Your task to perform on an android device: Toggle the flashlight Image 0: 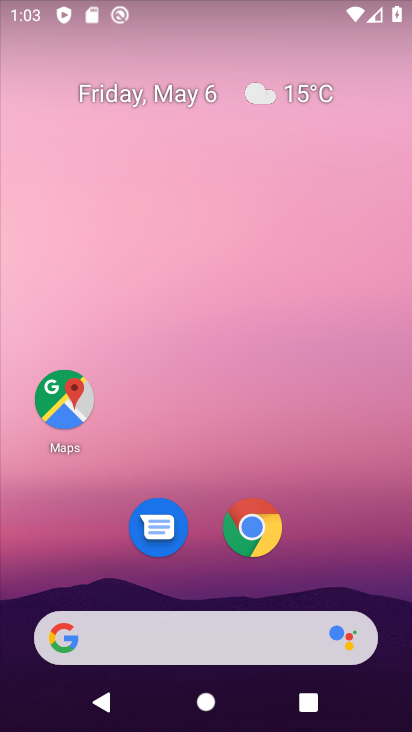
Step 0: drag from (228, 14) to (106, 705)
Your task to perform on an android device: Toggle the flashlight Image 1: 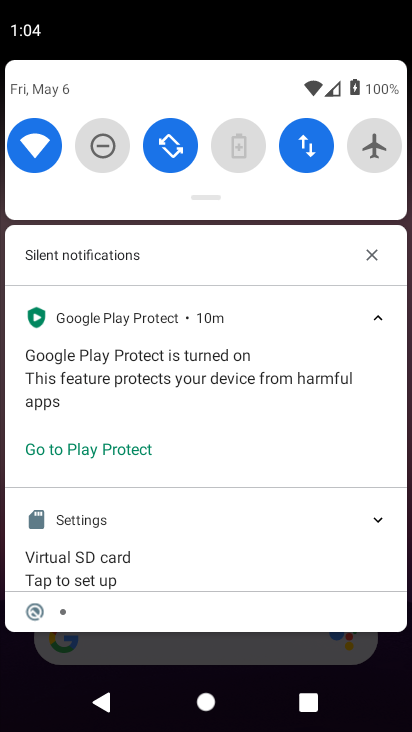
Step 1: drag from (194, 91) to (263, 542)
Your task to perform on an android device: Toggle the flashlight Image 2: 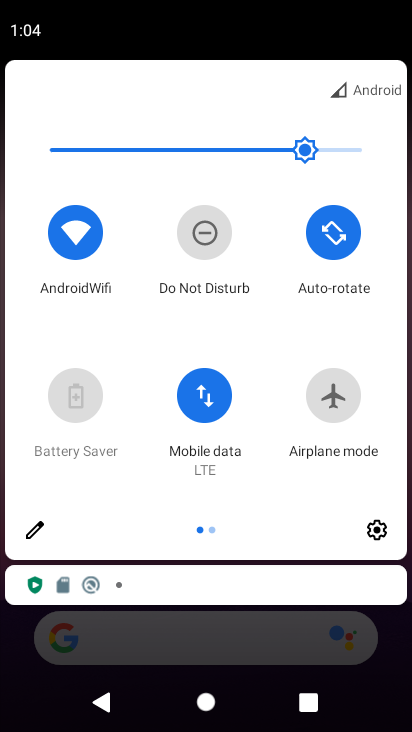
Step 2: click (388, 535)
Your task to perform on an android device: Toggle the flashlight Image 3: 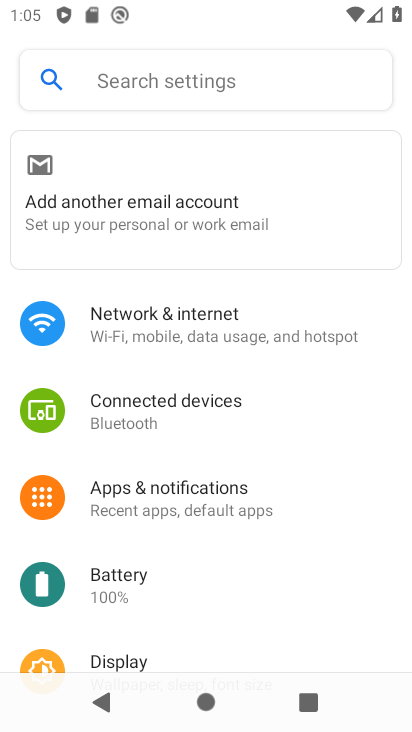
Step 3: task complete